Your task to perform on an android device: open a new tab in the chrome app Image 0: 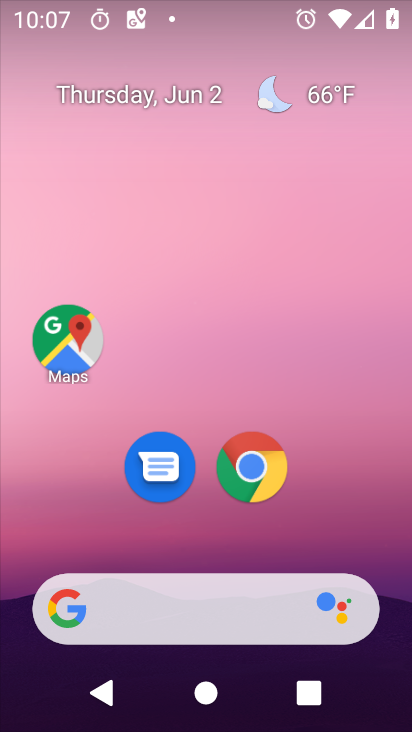
Step 0: click (251, 472)
Your task to perform on an android device: open a new tab in the chrome app Image 1: 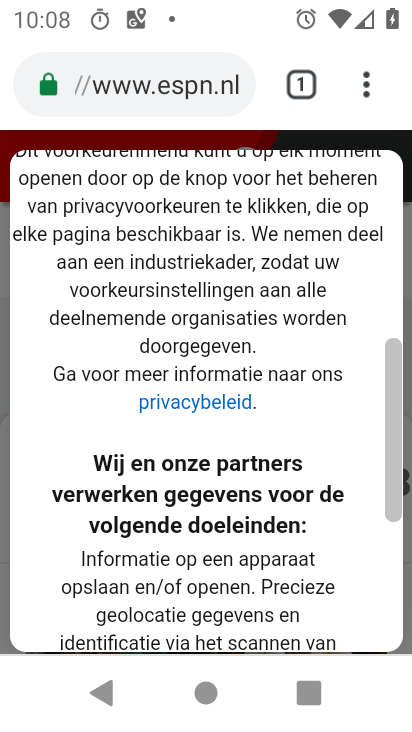
Step 1: click (307, 82)
Your task to perform on an android device: open a new tab in the chrome app Image 2: 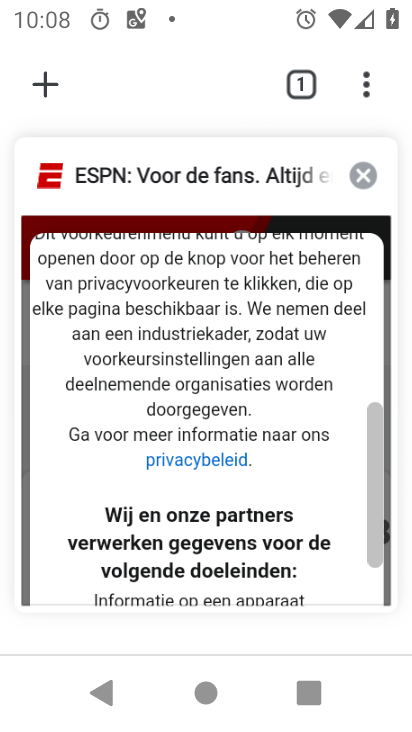
Step 2: click (44, 76)
Your task to perform on an android device: open a new tab in the chrome app Image 3: 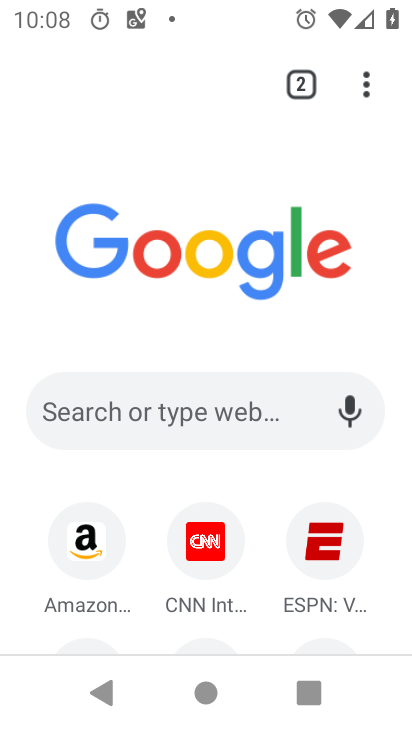
Step 3: task complete